Your task to perform on an android device: add a contact Image 0: 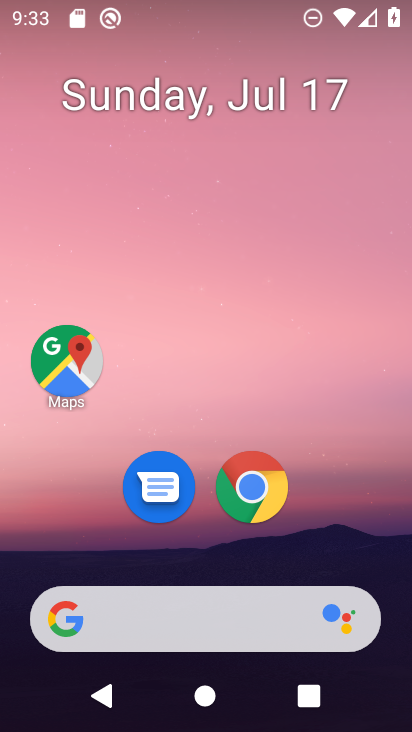
Step 0: drag from (349, 563) to (391, 47)
Your task to perform on an android device: add a contact Image 1: 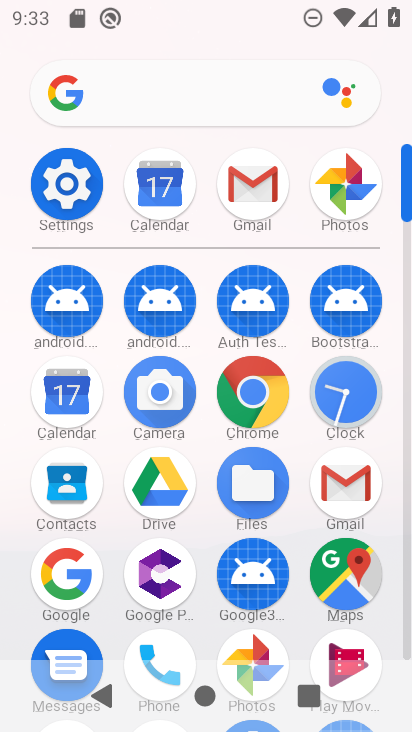
Step 1: click (60, 478)
Your task to perform on an android device: add a contact Image 2: 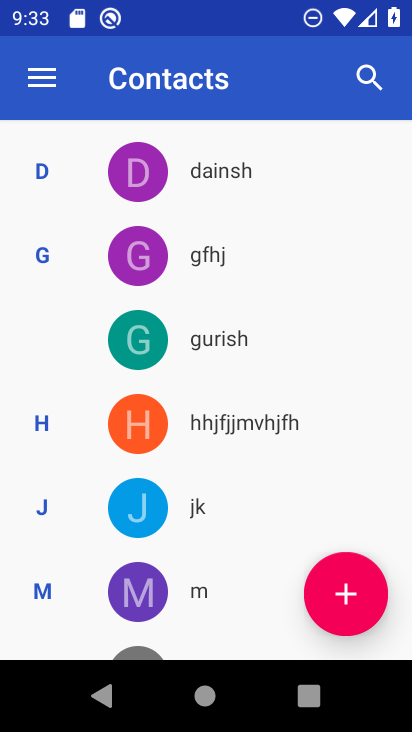
Step 2: click (354, 600)
Your task to perform on an android device: add a contact Image 3: 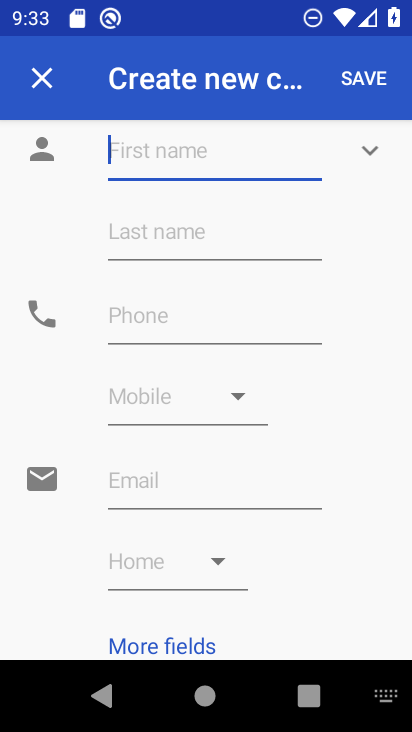
Step 3: type "ggghghg"
Your task to perform on an android device: add a contact Image 4: 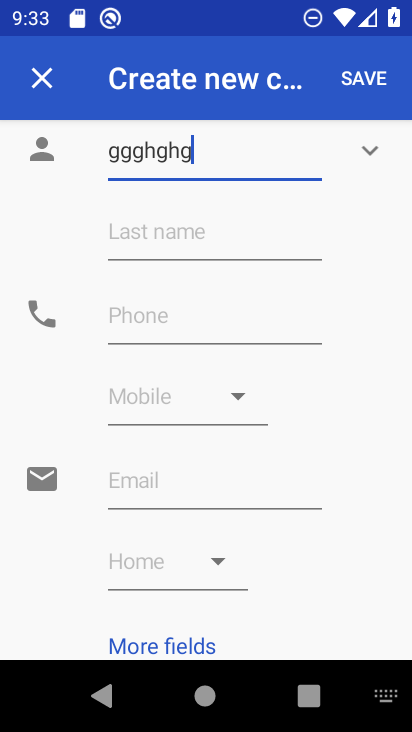
Step 4: click (187, 287)
Your task to perform on an android device: add a contact Image 5: 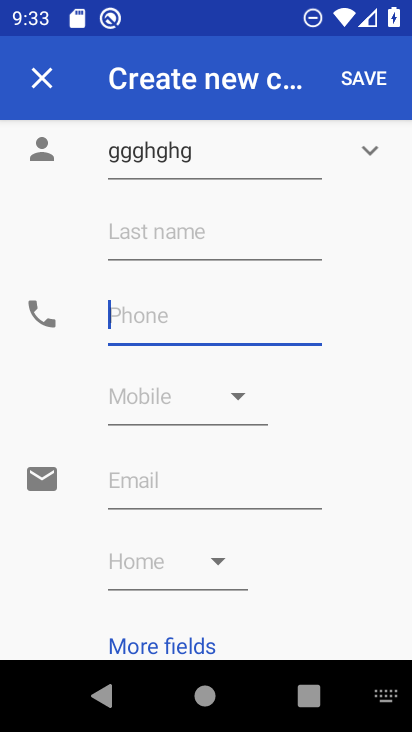
Step 5: type "78787878"
Your task to perform on an android device: add a contact Image 6: 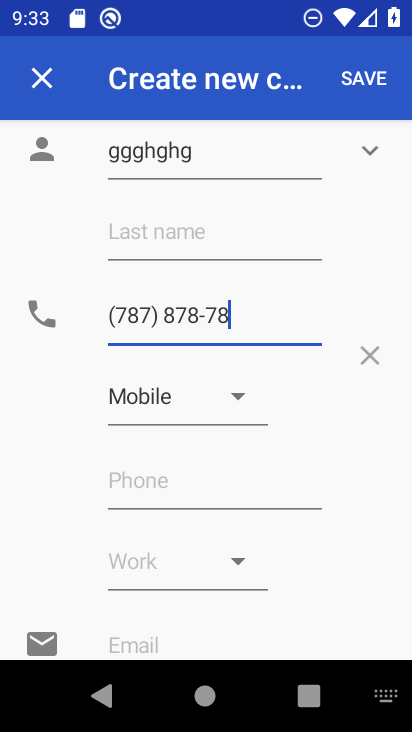
Step 6: click (374, 86)
Your task to perform on an android device: add a contact Image 7: 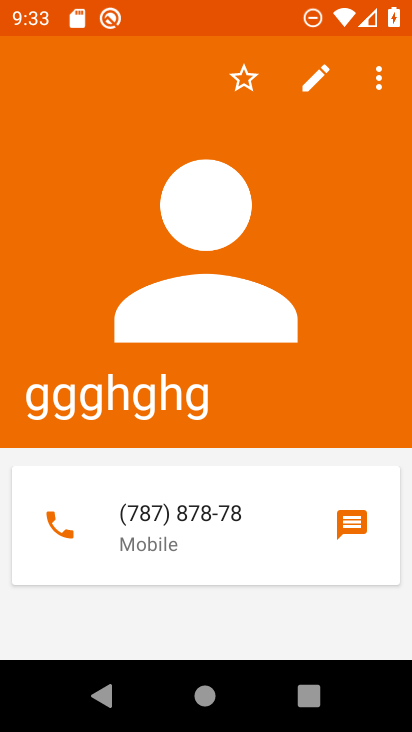
Step 7: task complete